Your task to perform on an android device: turn off improve location accuracy Image 0: 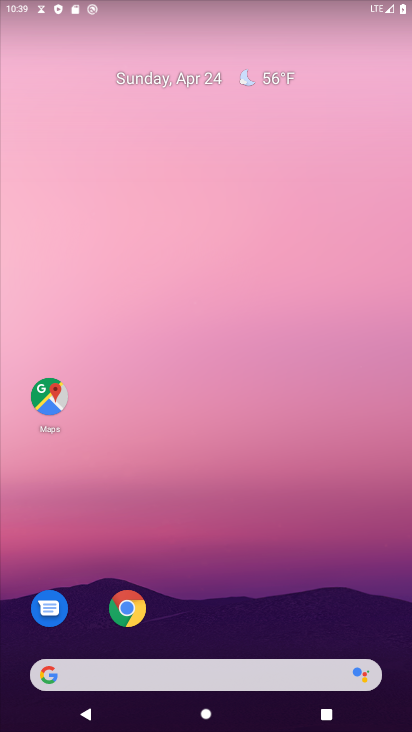
Step 0: drag from (221, 647) to (281, 29)
Your task to perform on an android device: turn off improve location accuracy Image 1: 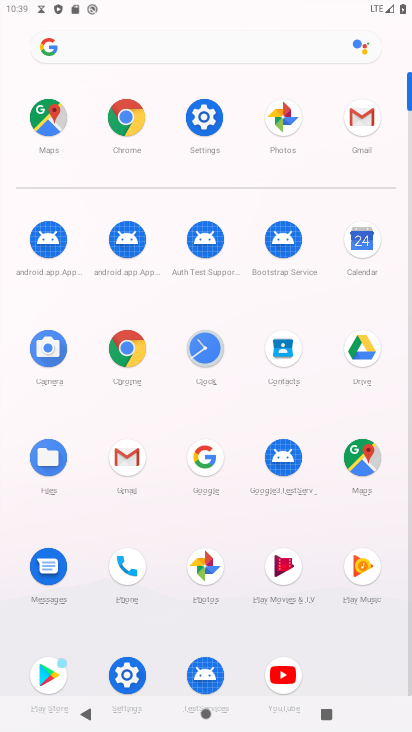
Step 1: click (133, 664)
Your task to perform on an android device: turn off improve location accuracy Image 2: 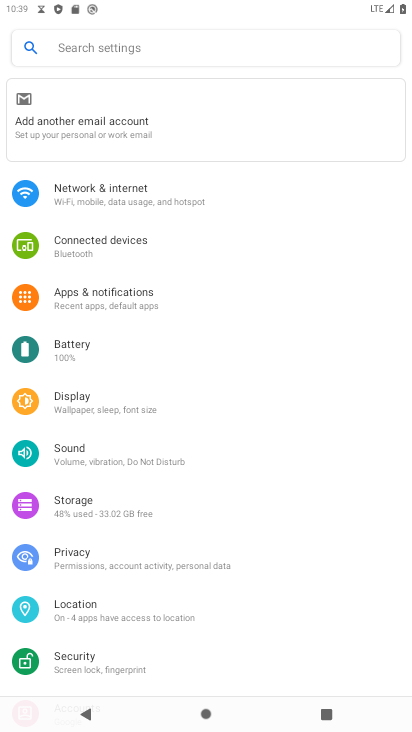
Step 2: click (102, 620)
Your task to perform on an android device: turn off improve location accuracy Image 3: 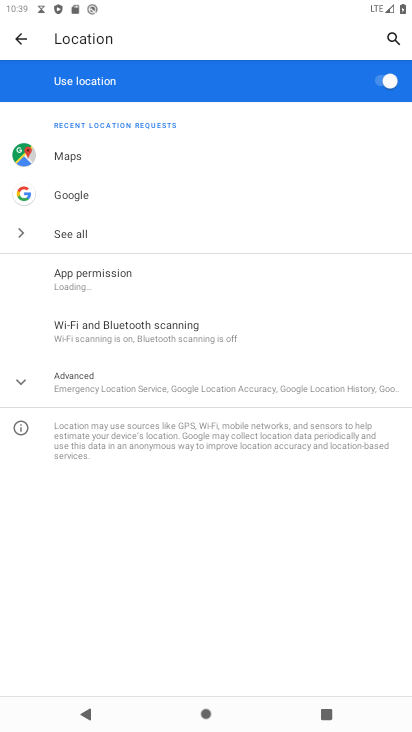
Step 3: click (108, 393)
Your task to perform on an android device: turn off improve location accuracy Image 4: 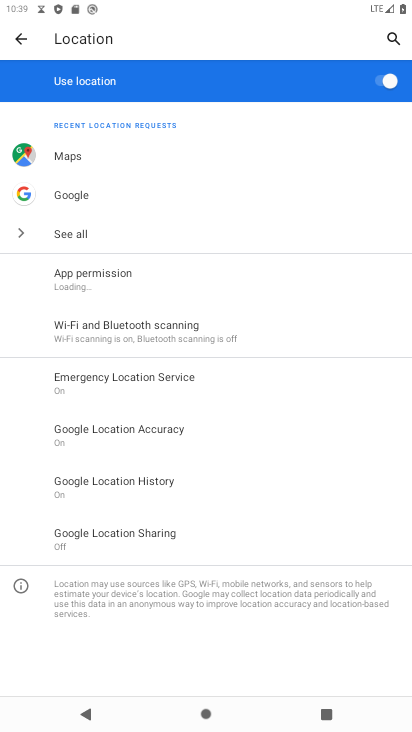
Step 4: click (119, 426)
Your task to perform on an android device: turn off improve location accuracy Image 5: 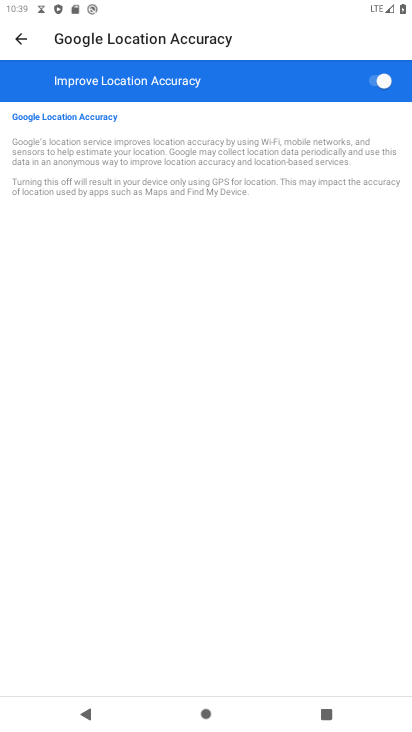
Step 5: click (370, 84)
Your task to perform on an android device: turn off improve location accuracy Image 6: 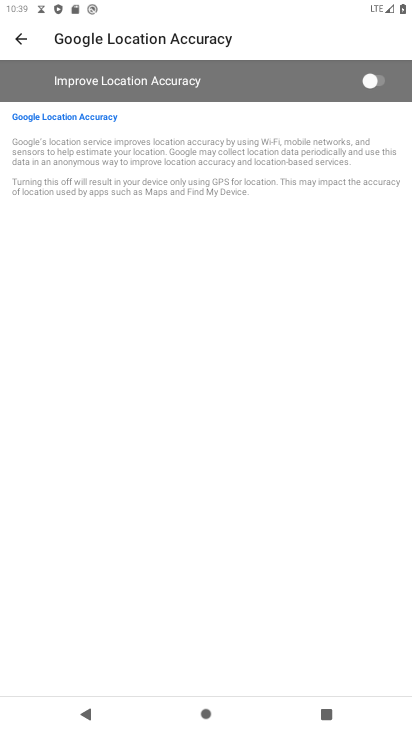
Step 6: task complete